Your task to perform on an android device: Open Google Chrome and click the shortcut for Amazon.com Image 0: 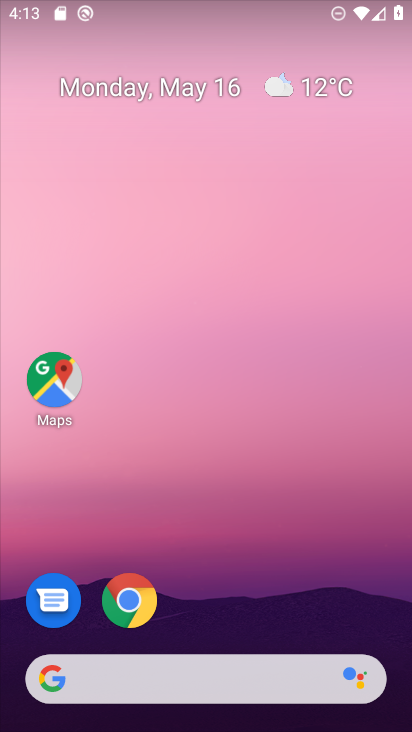
Step 0: press home button
Your task to perform on an android device: Open Google Chrome and click the shortcut for Amazon.com Image 1: 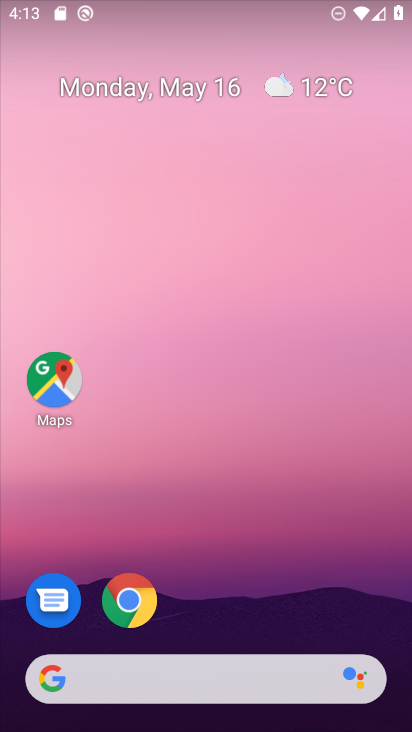
Step 1: click (130, 606)
Your task to perform on an android device: Open Google Chrome and click the shortcut for Amazon.com Image 2: 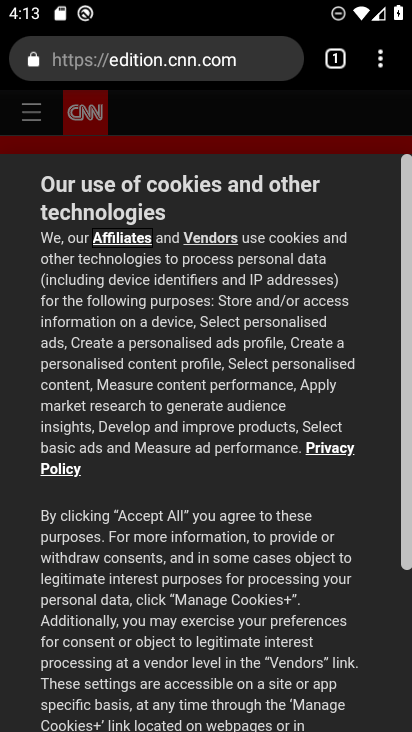
Step 2: click (248, 53)
Your task to perform on an android device: Open Google Chrome and click the shortcut for Amazon.com Image 3: 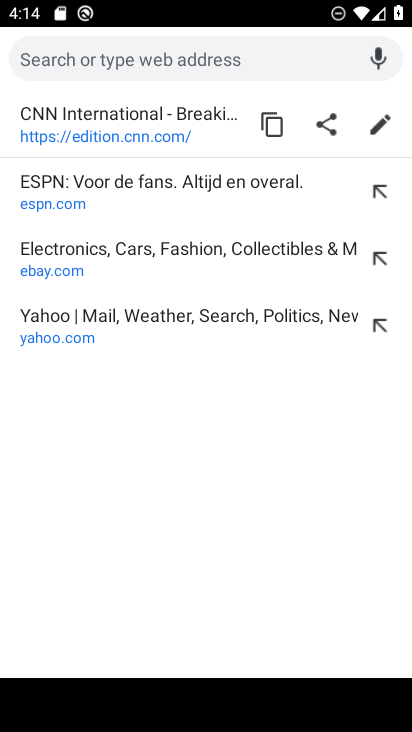
Step 3: type "amazon.com"
Your task to perform on an android device: Open Google Chrome and click the shortcut for Amazon.com Image 4: 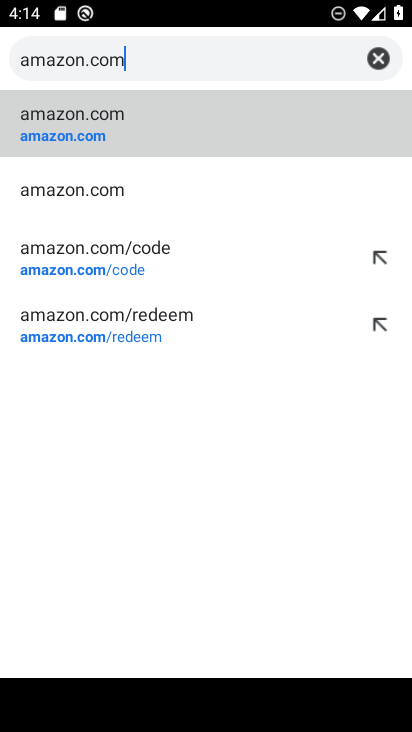
Step 4: click (85, 133)
Your task to perform on an android device: Open Google Chrome and click the shortcut for Amazon.com Image 5: 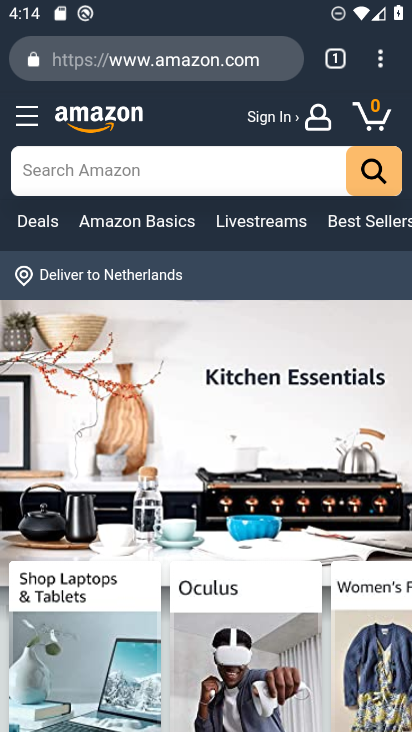
Step 5: task complete